Your task to perform on an android device: Open Chrome and go to settings Image 0: 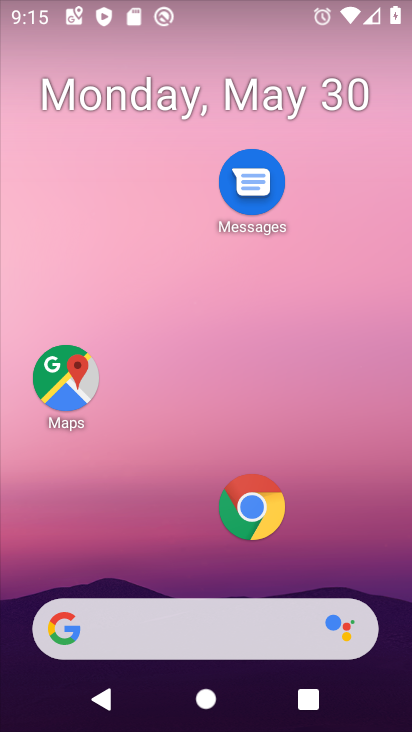
Step 0: click (260, 512)
Your task to perform on an android device: Open Chrome and go to settings Image 1: 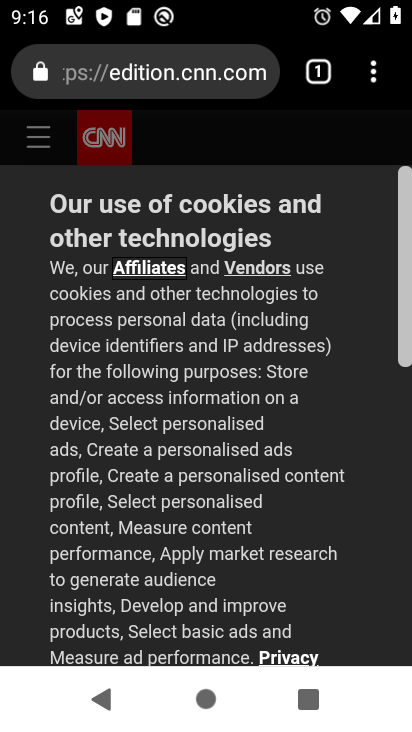
Step 1: click (374, 77)
Your task to perform on an android device: Open Chrome and go to settings Image 2: 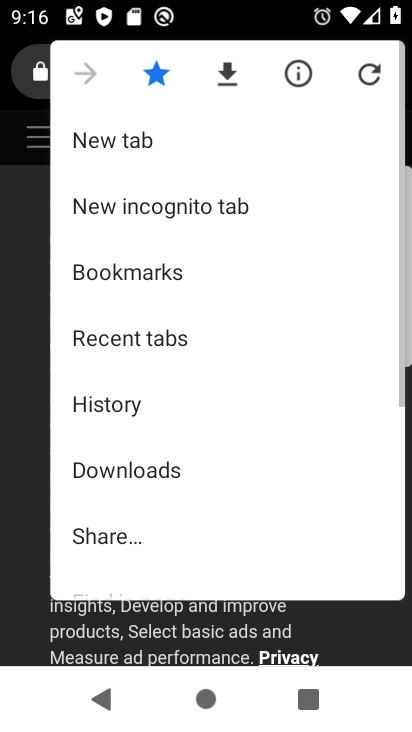
Step 2: drag from (125, 521) to (103, 171)
Your task to perform on an android device: Open Chrome and go to settings Image 3: 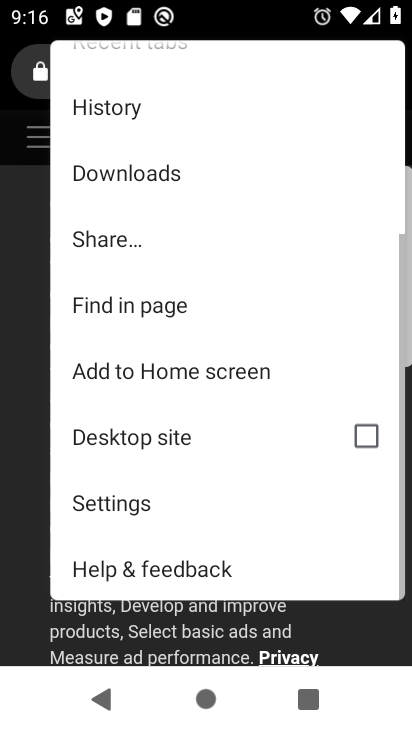
Step 3: click (113, 500)
Your task to perform on an android device: Open Chrome and go to settings Image 4: 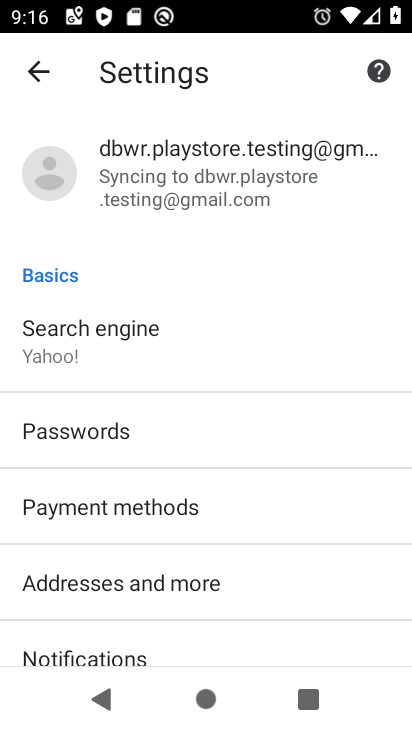
Step 4: task complete